Your task to perform on an android device: choose inbox layout in the gmail app Image 0: 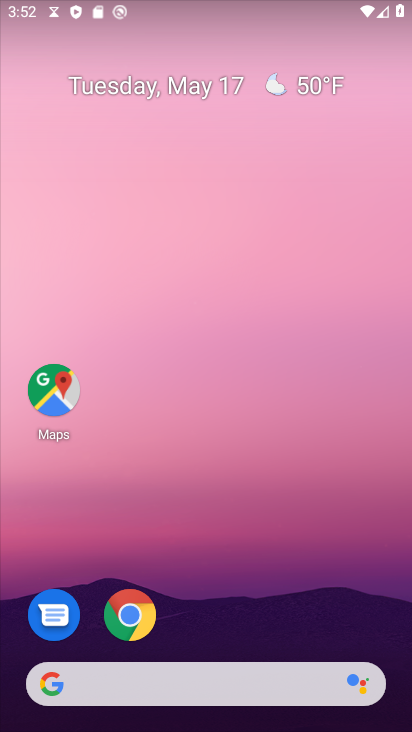
Step 0: drag from (231, 359) to (235, 237)
Your task to perform on an android device: choose inbox layout in the gmail app Image 1: 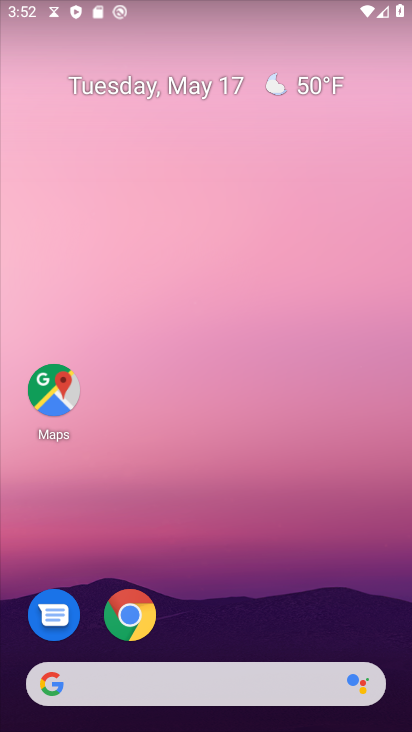
Step 1: drag from (253, 620) to (278, 50)
Your task to perform on an android device: choose inbox layout in the gmail app Image 2: 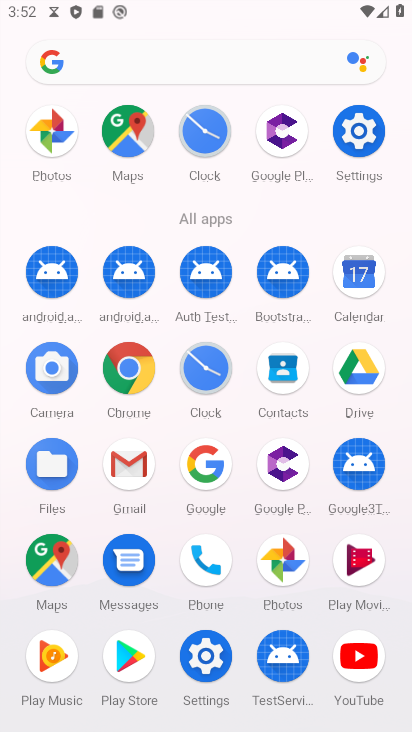
Step 2: click (126, 468)
Your task to perform on an android device: choose inbox layout in the gmail app Image 3: 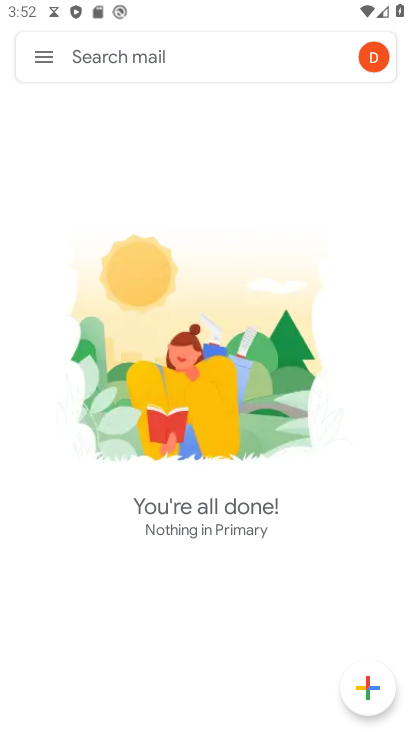
Step 3: click (22, 53)
Your task to perform on an android device: choose inbox layout in the gmail app Image 4: 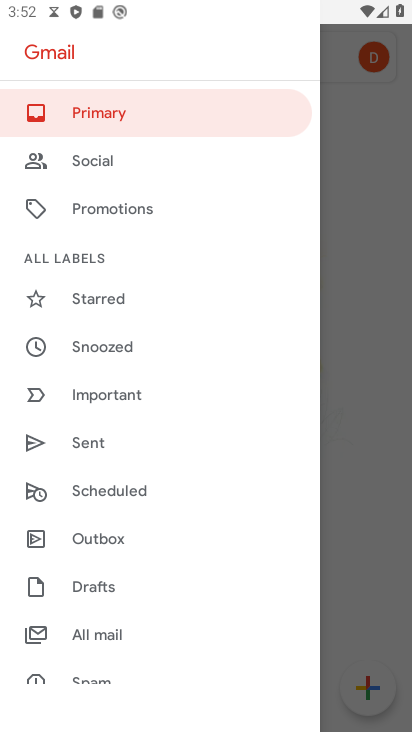
Step 4: click (106, 628)
Your task to perform on an android device: choose inbox layout in the gmail app Image 5: 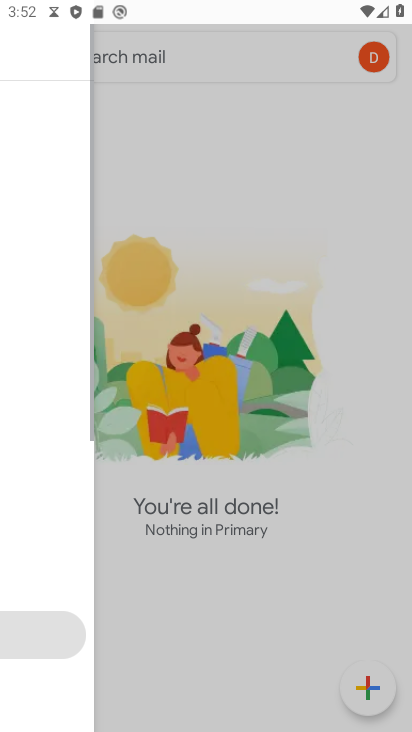
Step 5: click (106, 628)
Your task to perform on an android device: choose inbox layout in the gmail app Image 6: 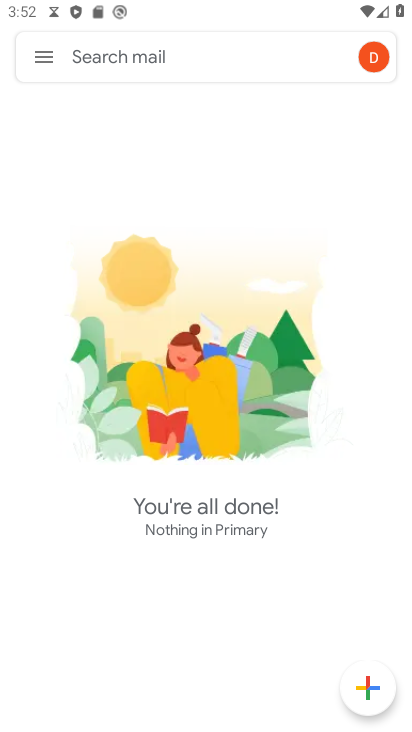
Step 6: click (106, 628)
Your task to perform on an android device: choose inbox layout in the gmail app Image 7: 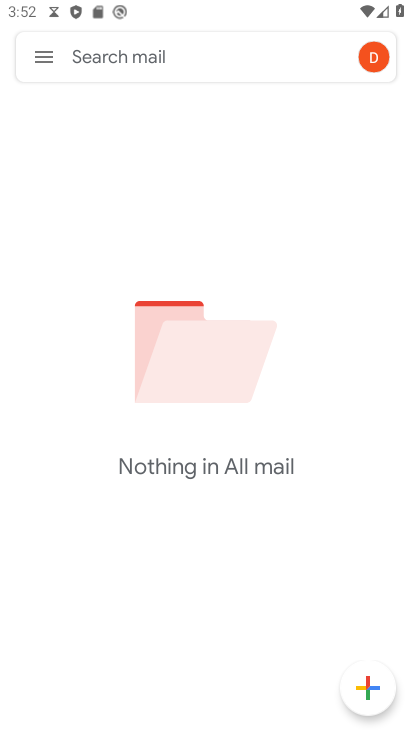
Step 7: task complete